Your task to perform on an android device: turn off smart reply in the gmail app Image 0: 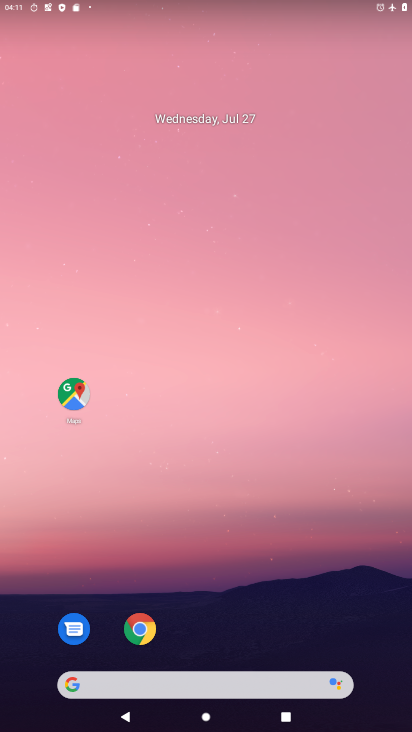
Step 0: drag from (240, 460) to (244, 72)
Your task to perform on an android device: turn off smart reply in the gmail app Image 1: 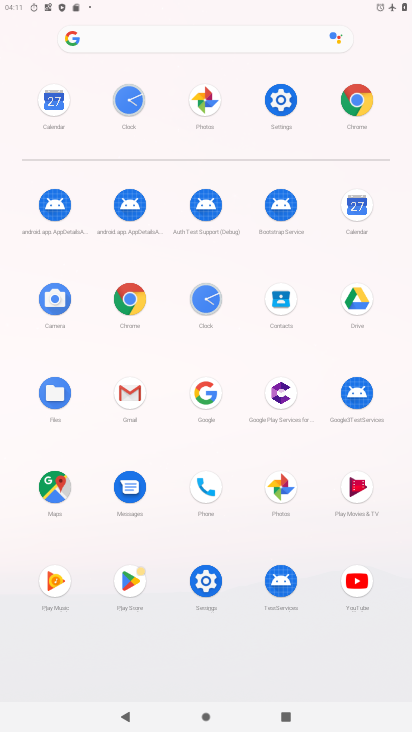
Step 1: click (139, 390)
Your task to perform on an android device: turn off smart reply in the gmail app Image 2: 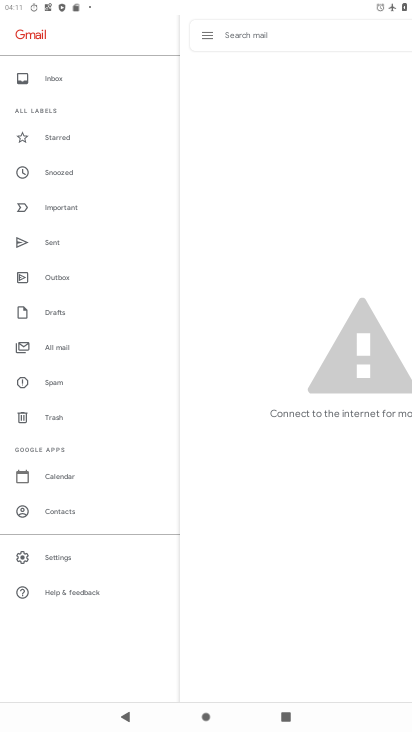
Step 2: click (53, 553)
Your task to perform on an android device: turn off smart reply in the gmail app Image 3: 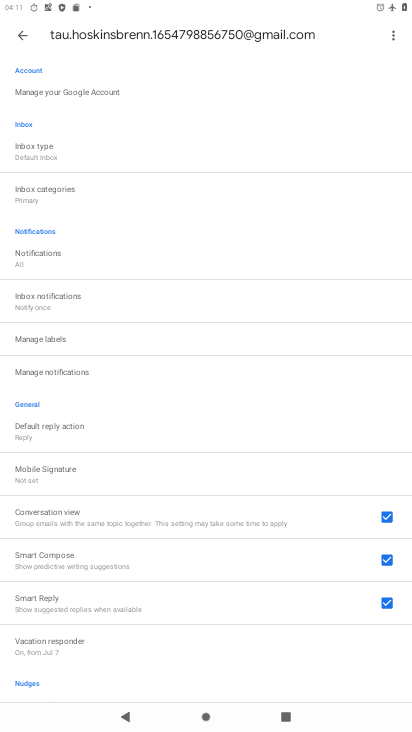
Step 3: click (389, 597)
Your task to perform on an android device: turn off smart reply in the gmail app Image 4: 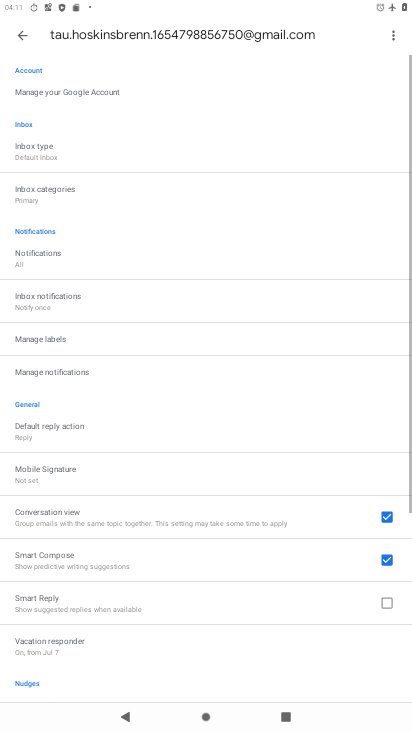
Step 4: task complete